Your task to perform on an android device: Open maps Image 0: 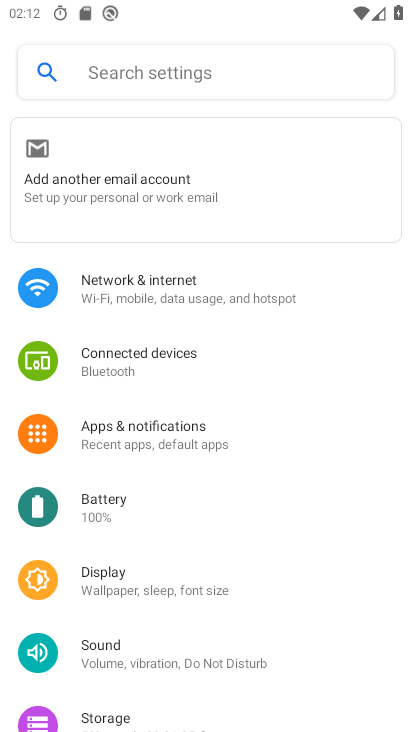
Step 0: press home button
Your task to perform on an android device: Open maps Image 1: 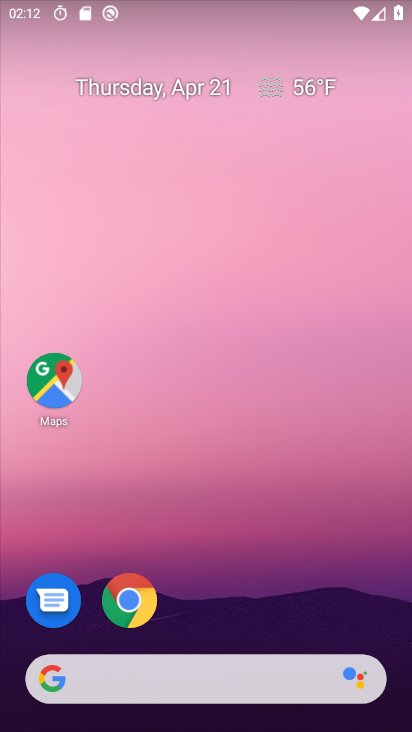
Step 1: click (53, 384)
Your task to perform on an android device: Open maps Image 2: 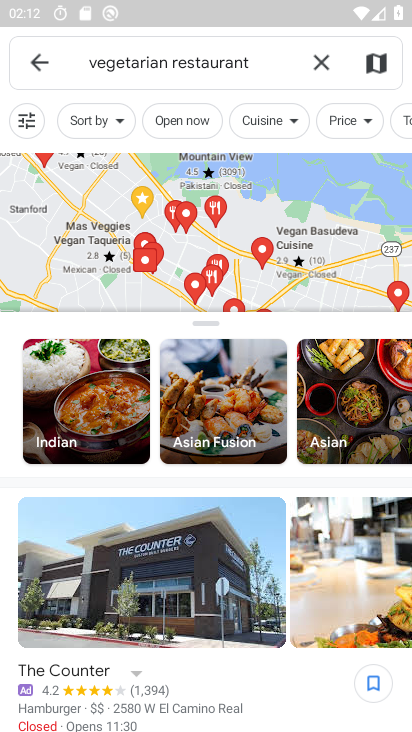
Step 2: click (316, 56)
Your task to perform on an android device: Open maps Image 3: 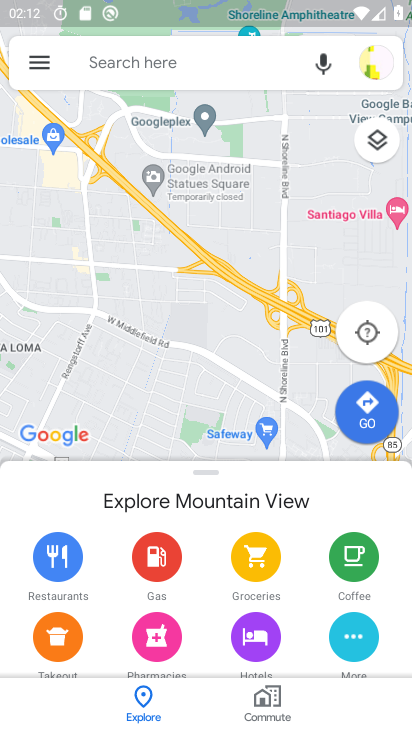
Step 3: task complete